Your task to perform on an android device: add a contact in the contacts app Image 0: 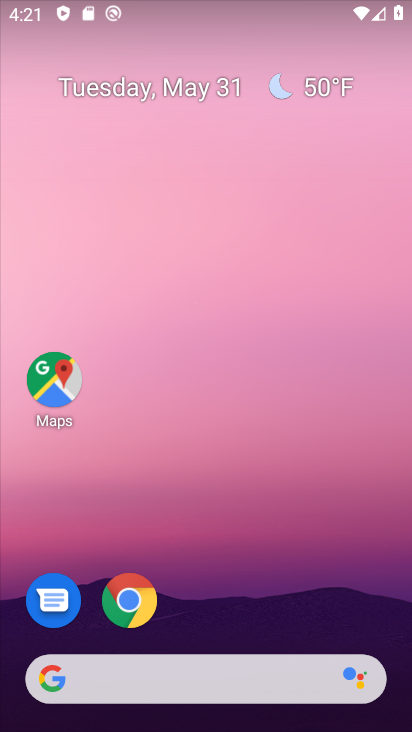
Step 0: drag from (269, 582) to (203, 16)
Your task to perform on an android device: add a contact in the contacts app Image 1: 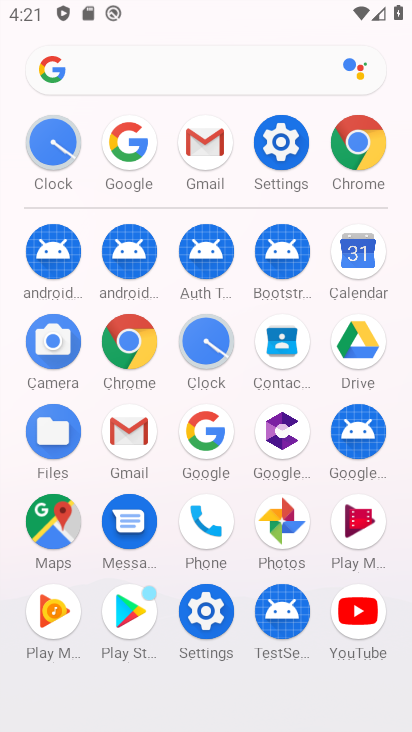
Step 1: click (286, 345)
Your task to perform on an android device: add a contact in the contacts app Image 2: 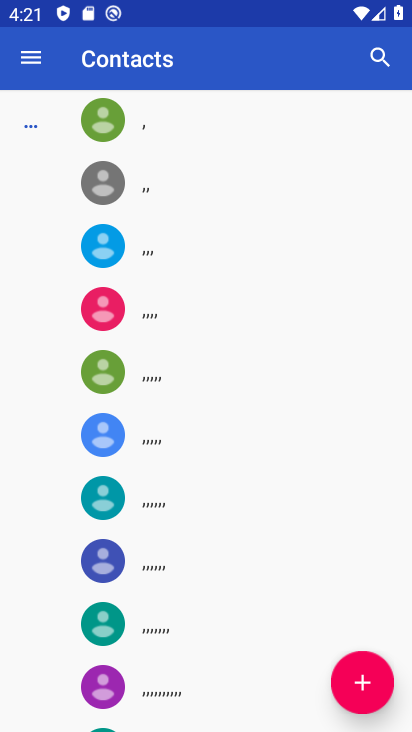
Step 2: click (364, 676)
Your task to perform on an android device: add a contact in the contacts app Image 3: 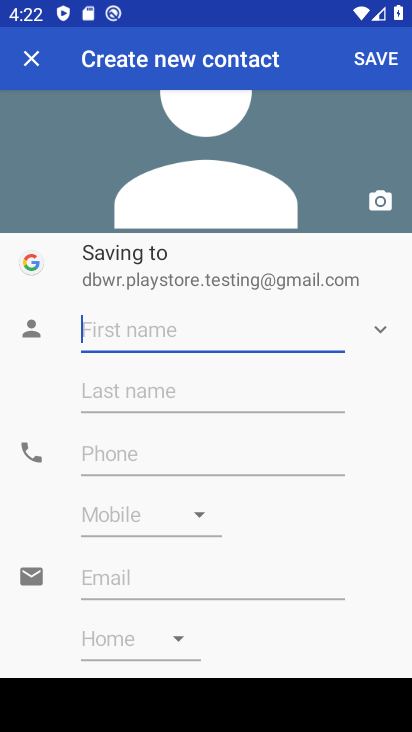
Step 3: type "Mohammad"
Your task to perform on an android device: add a contact in the contacts app Image 4: 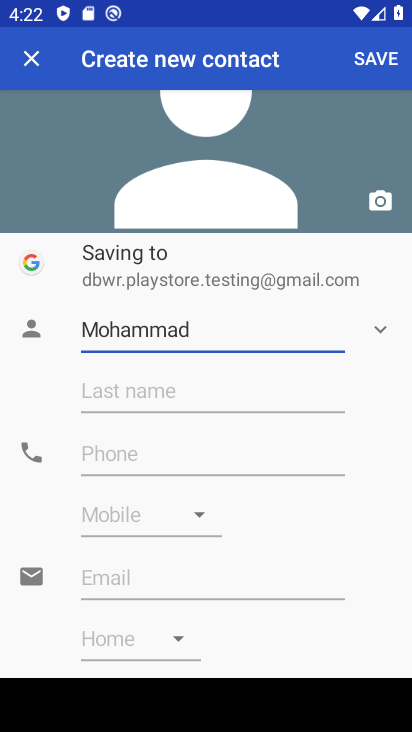
Step 4: click (275, 379)
Your task to perform on an android device: add a contact in the contacts app Image 5: 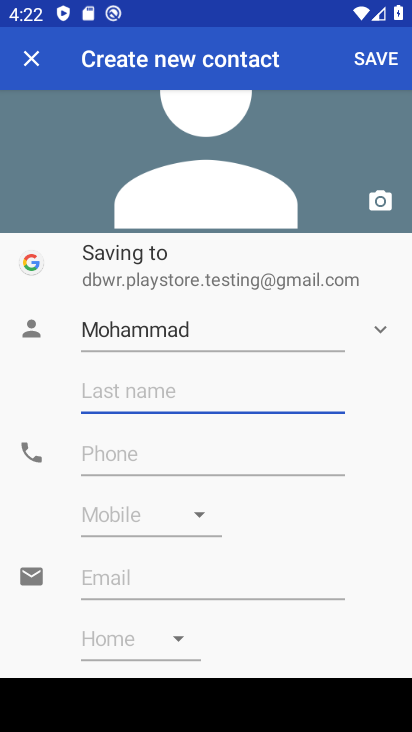
Step 5: type "Rameez"
Your task to perform on an android device: add a contact in the contacts app Image 6: 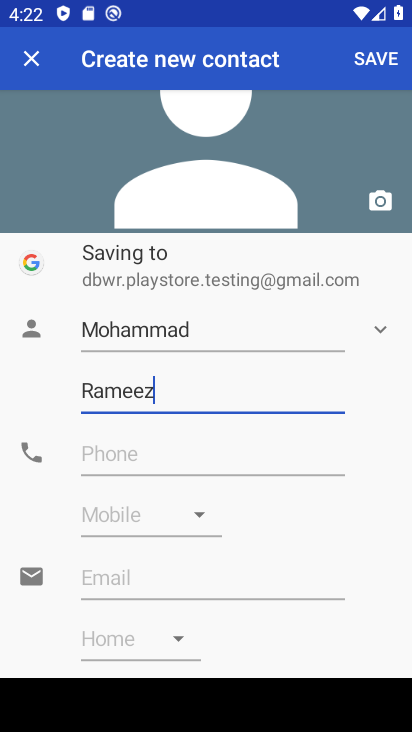
Step 6: click (183, 460)
Your task to perform on an android device: add a contact in the contacts app Image 7: 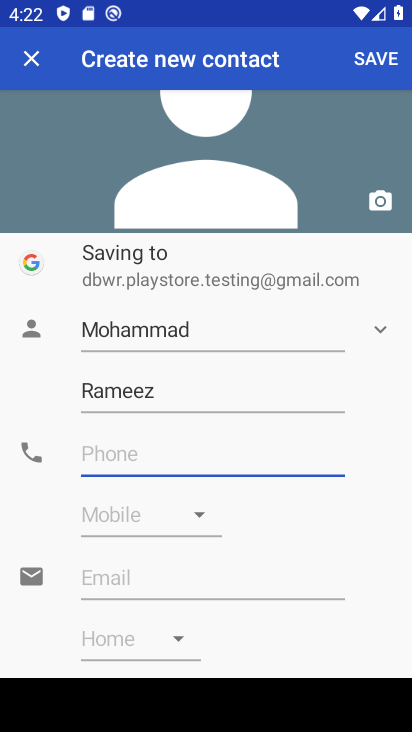
Step 7: type "0987654321"
Your task to perform on an android device: add a contact in the contacts app Image 8: 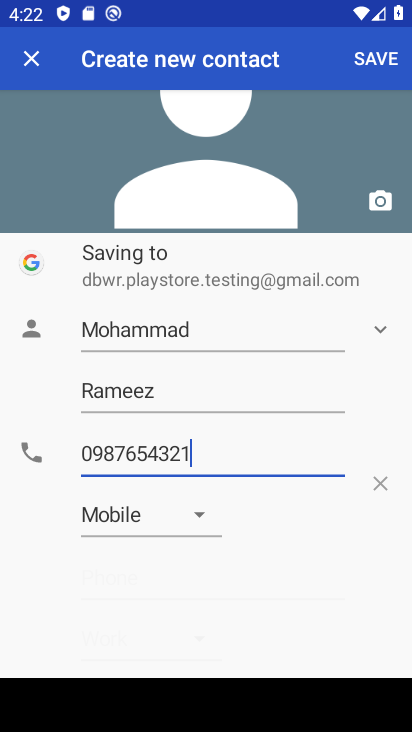
Step 8: type ""
Your task to perform on an android device: add a contact in the contacts app Image 9: 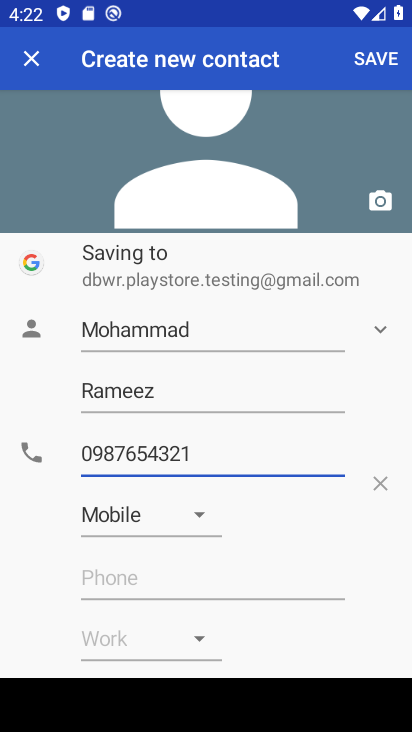
Step 9: click (380, 56)
Your task to perform on an android device: add a contact in the contacts app Image 10: 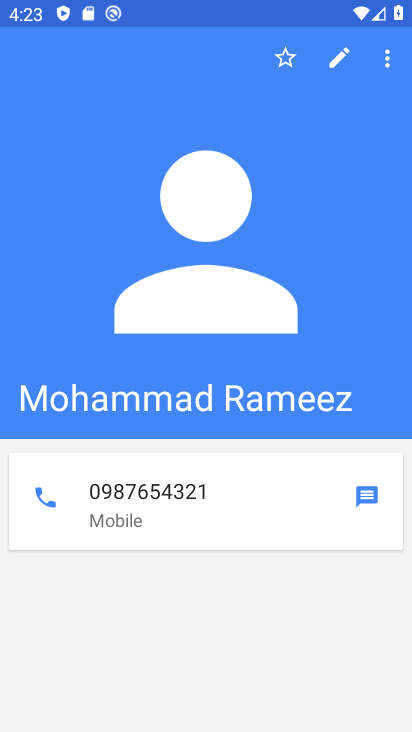
Step 10: task complete